Your task to perform on an android device: open a bookmark in the chrome app Image 0: 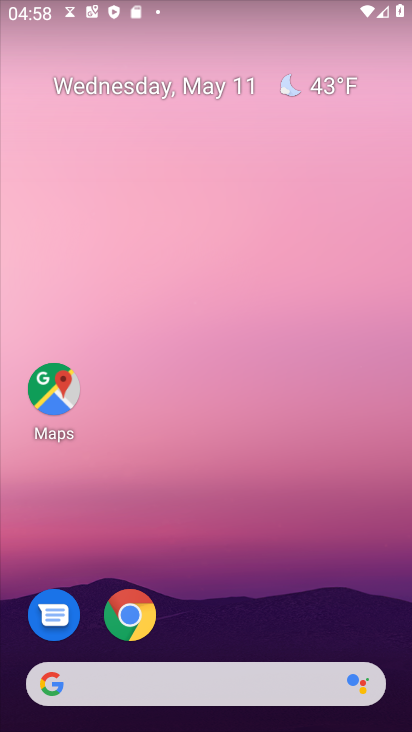
Step 0: drag from (216, 562) to (163, 33)
Your task to perform on an android device: open a bookmark in the chrome app Image 1: 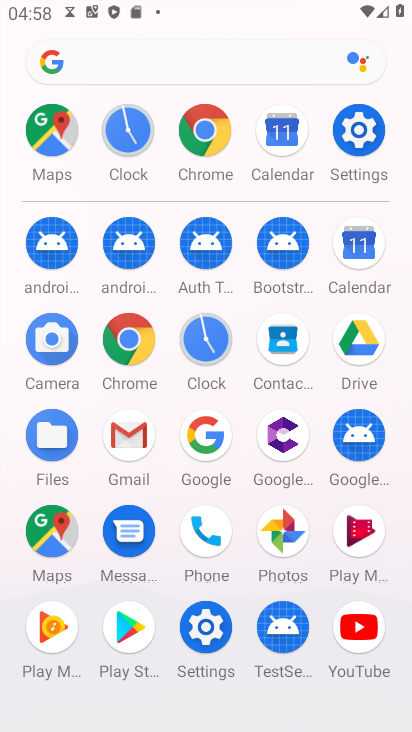
Step 1: click (127, 338)
Your task to perform on an android device: open a bookmark in the chrome app Image 2: 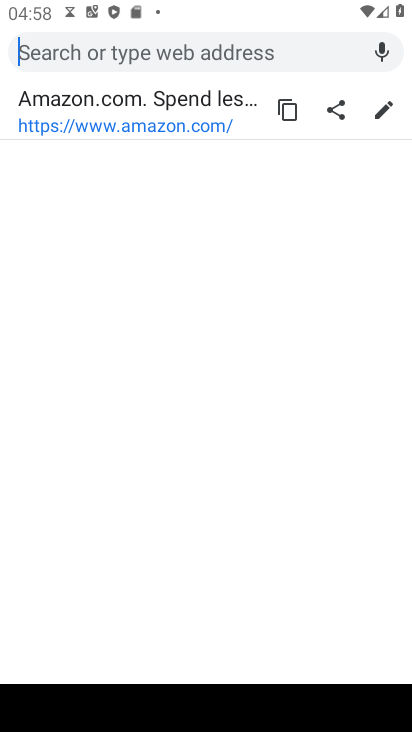
Step 2: task complete